Your task to perform on an android device: set an alarm Image 0: 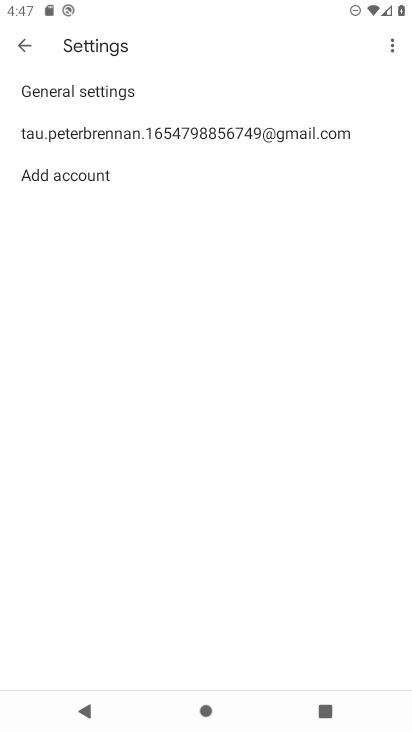
Step 0: press home button
Your task to perform on an android device: set an alarm Image 1: 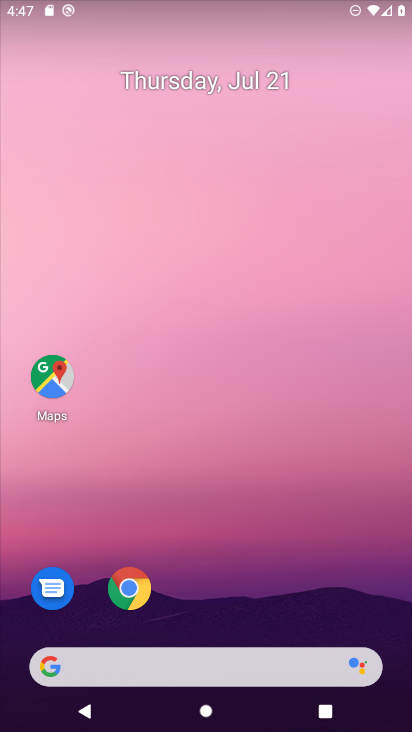
Step 1: drag from (248, 668) to (207, 43)
Your task to perform on an android device: set an alarm Image 2: 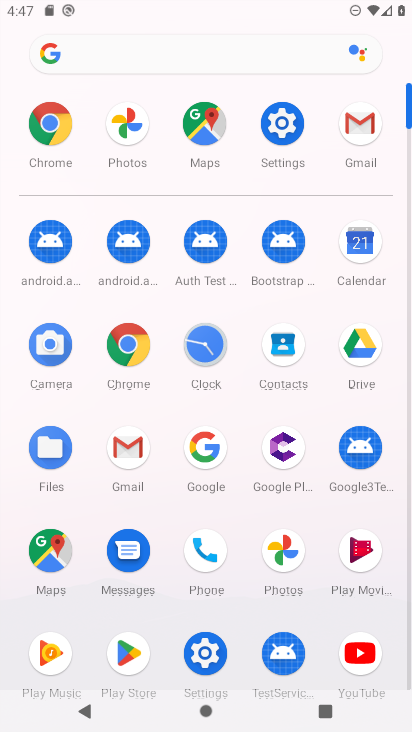
Step 2: click (207, 337)
Your task to perform on an android device: set an alarm Image 3: 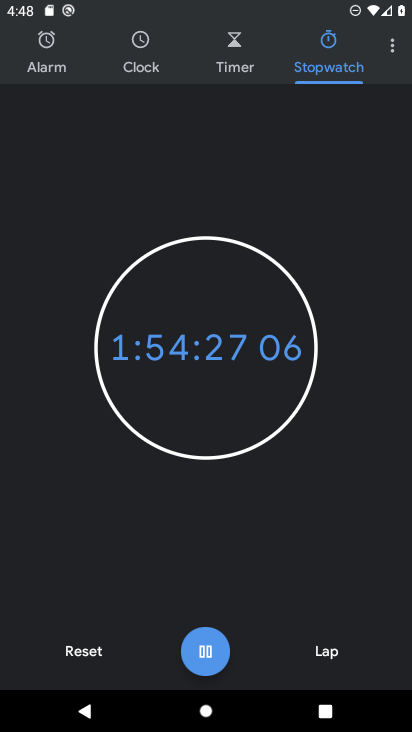
Step 3: click (70, 52)
Your task to perform on an android device: set an alarm Image 4: 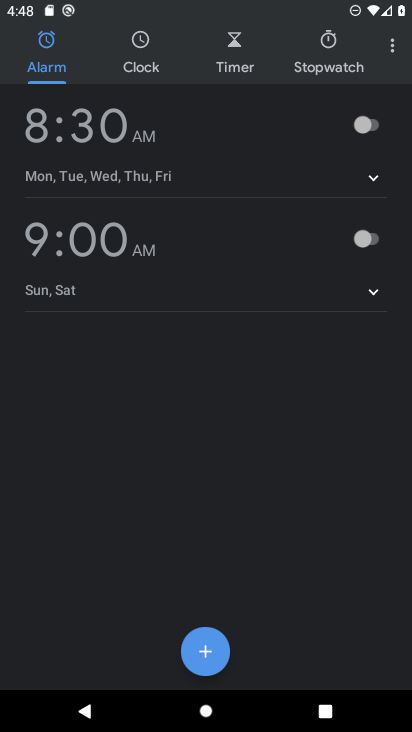
Step 4: click (216, 652)
Your task to perform on an android device: set an alarm Image 5: 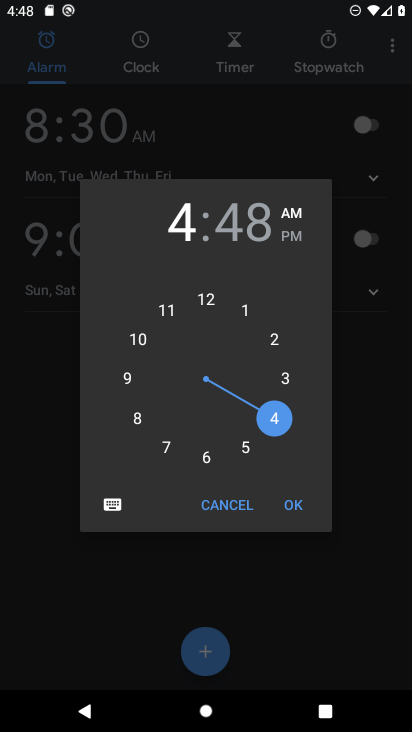
Step 5: click (287, 508)
Your task to perform on an android device: set an alarm Image 6: 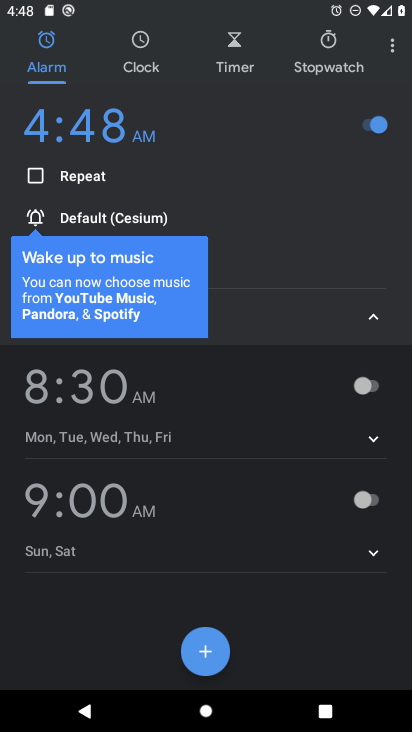
Step 6: task complete